Your task to perform on an android device: turn on the 12-hour format for clock Image 0: 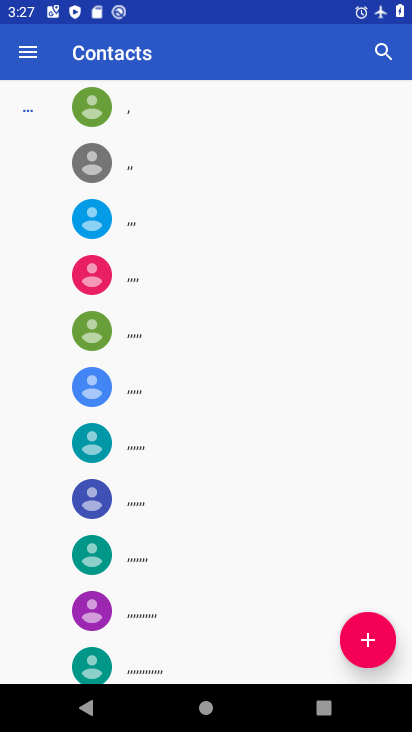
Step 0: press home button
Your task to perform on an android device: turn on the 12-hour format for clock Image 1: 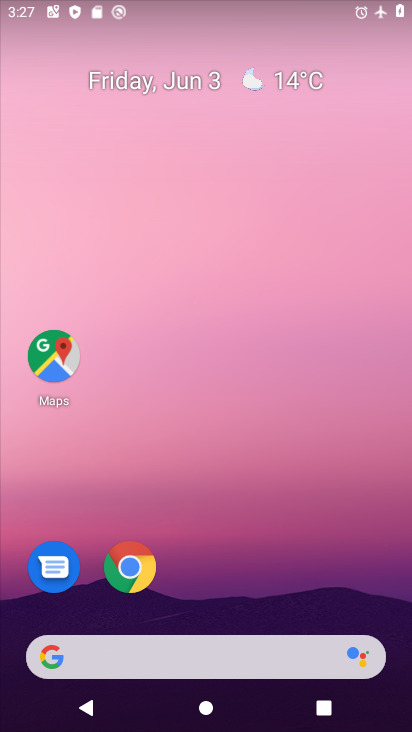
Step 1: drag from (231, 678) to (238, 8)
Your task to perform on an android device: turn on the 12-hour format for clock Image 2: 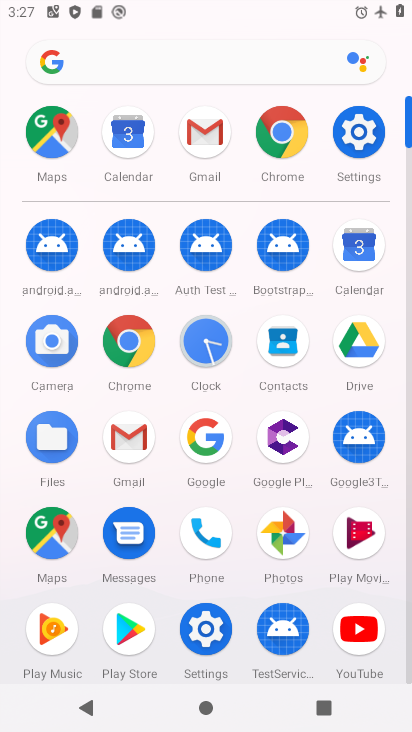
Step 2: click (214, 341)
Your task to perform on an android device: turn on the 12-hour format for clock Image 3: 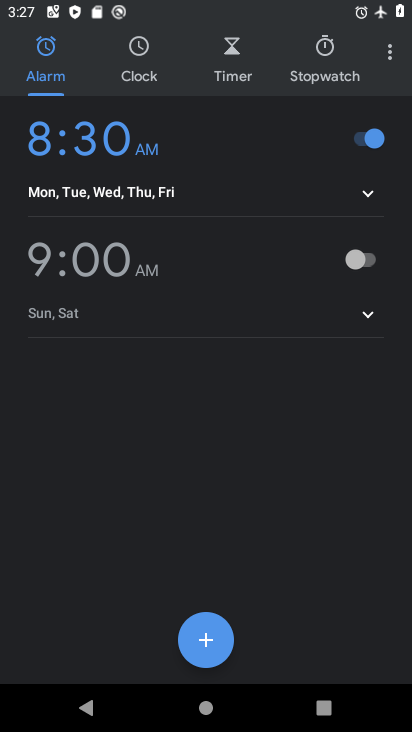
Step 3: click (375, 59)
Your task to perform on an android device: turn on the 12-hour format for clock Image 4: 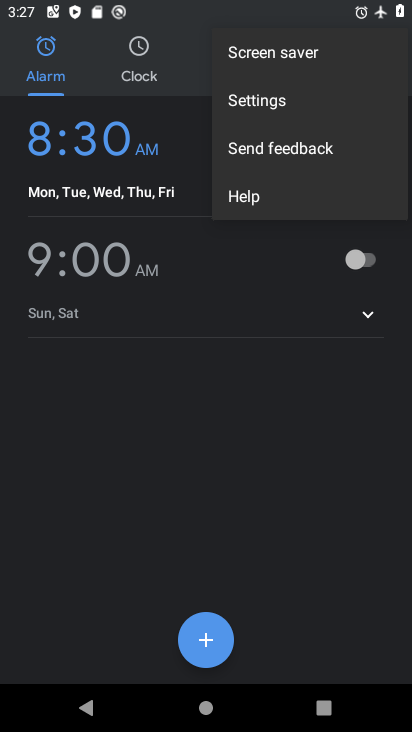
Step 4: click (287, 101)
Your task to perform on an android device: turn on the 12-hour format for clock Image 5: 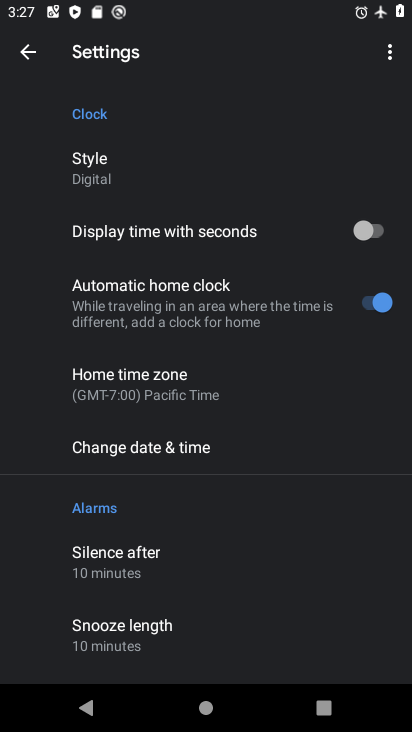
Step 5: click (158, 445)
Your task to perform on an android device: turn on the 12-hour format for clock Image 6: 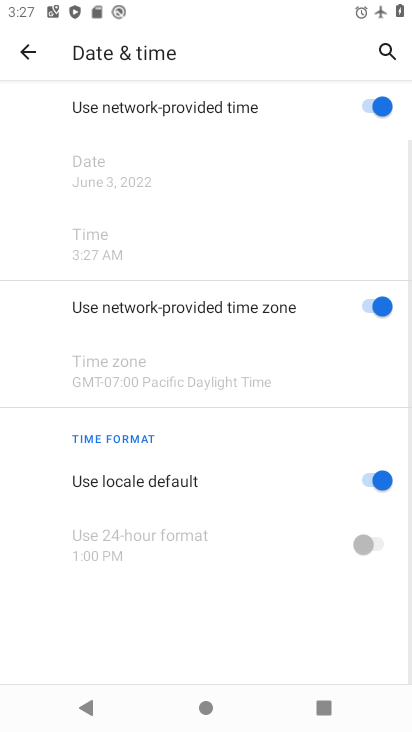
Step 6: click (372, 485)
Your task to perform on an android device: turn on the 12-hour format for clock Image 7: 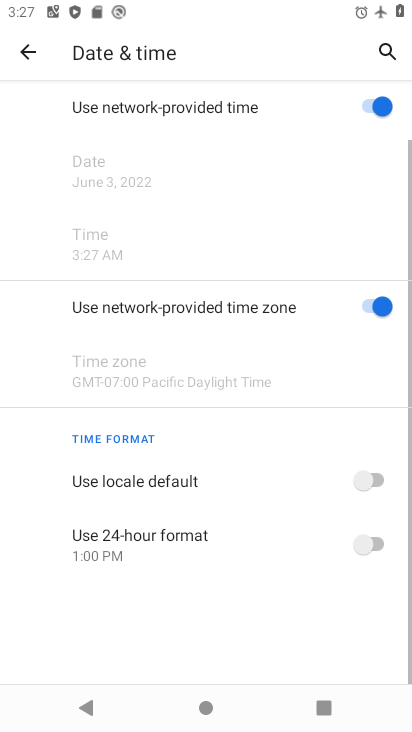
Step 7: click (373, 539)
Your task to perform on an android device: turn on the 12-hour format for clock Image 8: 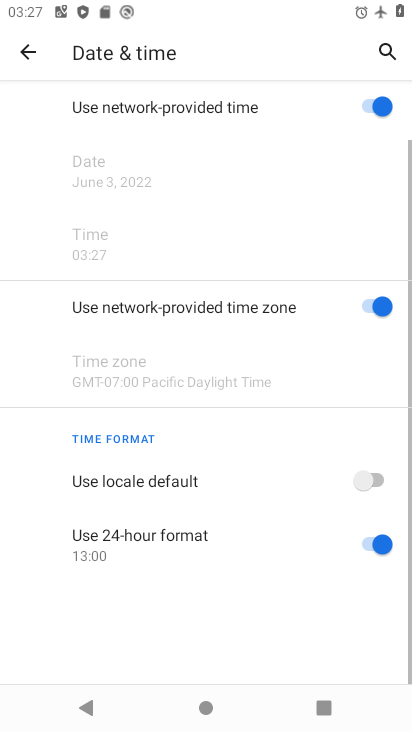
Step 8: click (372, 539)
Your task to perform on an android device: turn on the 12-hour format for clock Image 9: 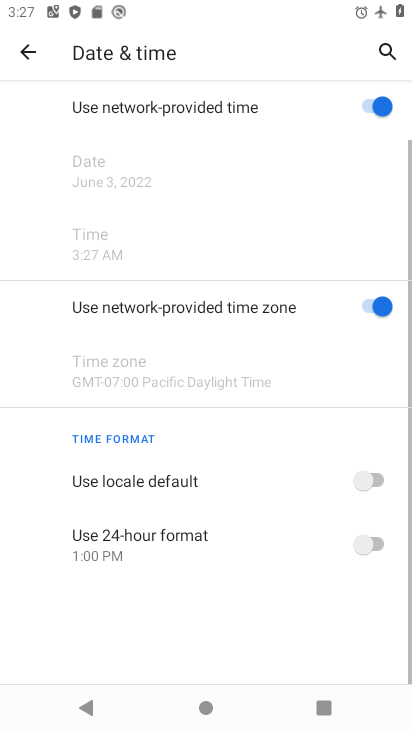
Step 9: task complete